Your task to perform on an android device: turn notification dots on Image 0: 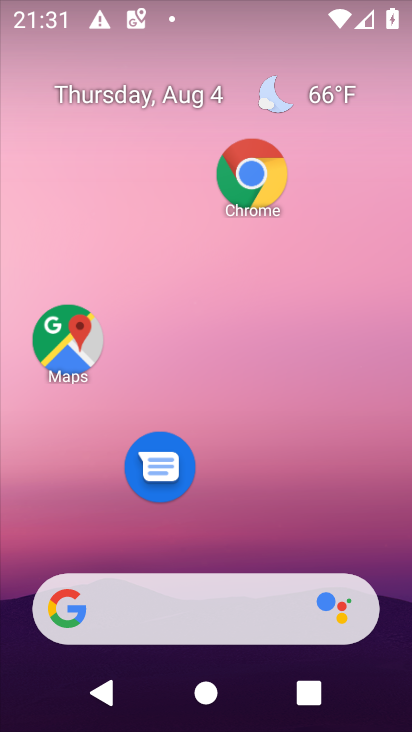
Step 0: drag from (270, 518) to (302, 28)
Your task to perform on an android device: turn notification dots on Image 1: 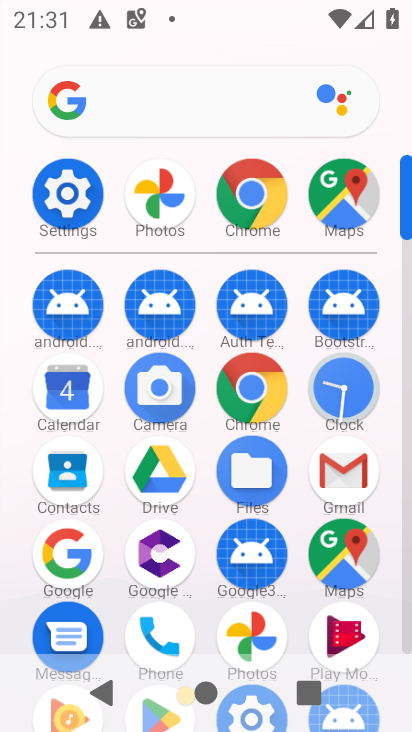
Step 1: click (68, 205)
Your task to perform on an android device: turn notification dots on Image 2: 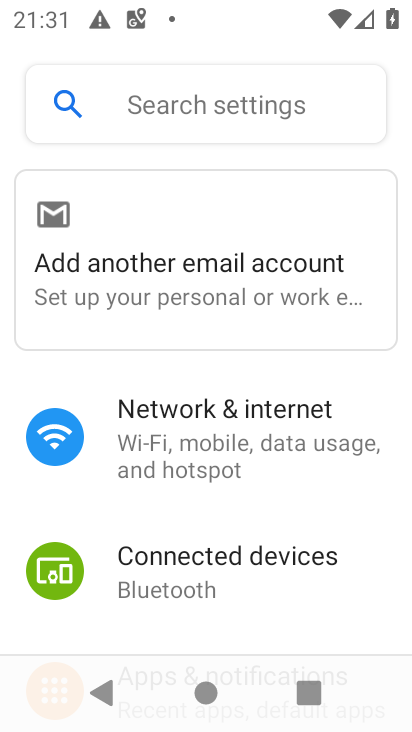
Step 2: drag from (203, 613) to (271, 94)
Your task to perform on an android device: turn notification dots on Image 3: 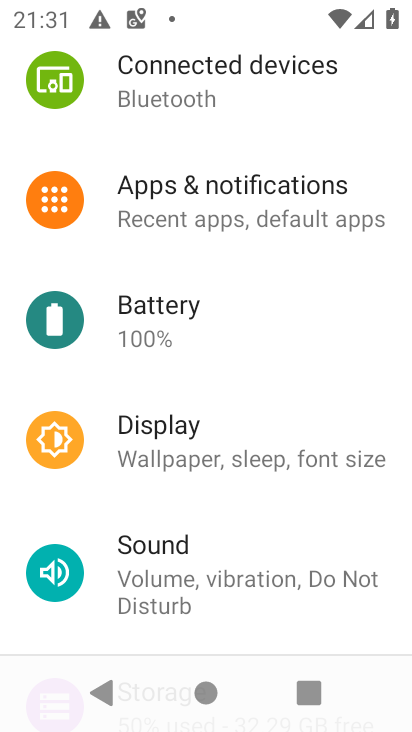
Step 3: drag from (247, 565) to (304, 144)
Your task to perform on an android device: turn notification dots on Image 4: 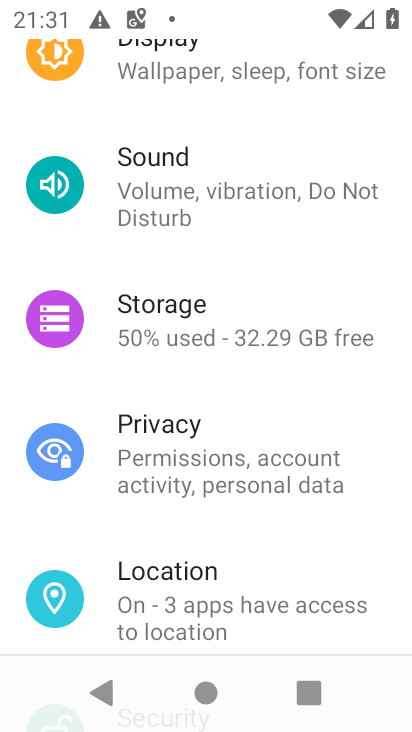
Step 4: drag from (195, 526) to (269, 106)
Your task to perform on an android device: turn notification dots on Image 5: 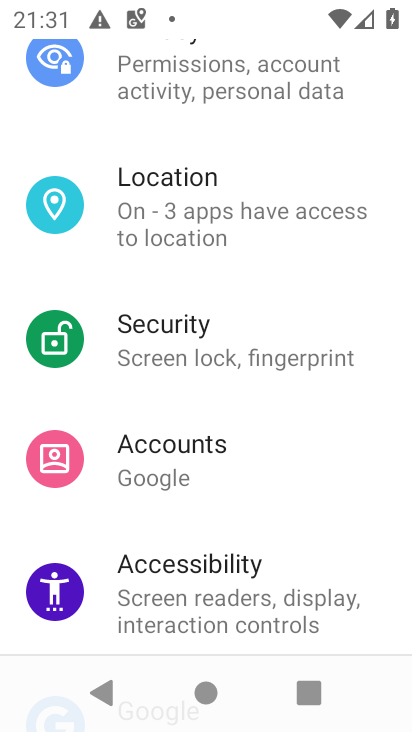
Step 5: drag from (207, 557) to (284, 124)
Your task to perform on an android device: turn notification dots on Image 6: 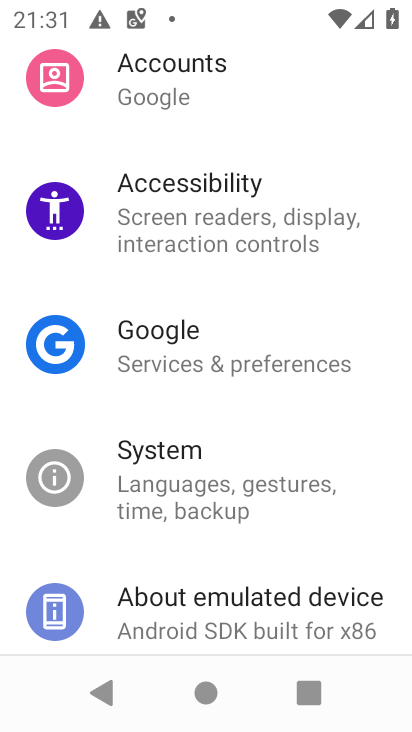
Step 6: drag from (231, 247) to (205, 654)
Your task to perform on an android device: turn notification dots on Image 7: 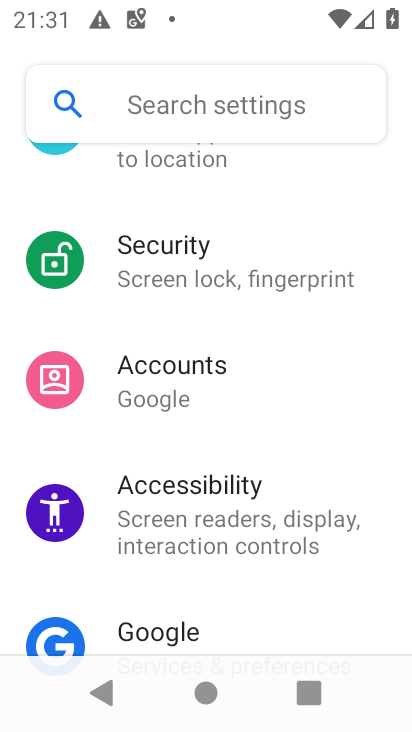
Step 7: drag from (234, 191) to (201, 577)
Your task to perform on an android device: turn notification dots on Image 8: 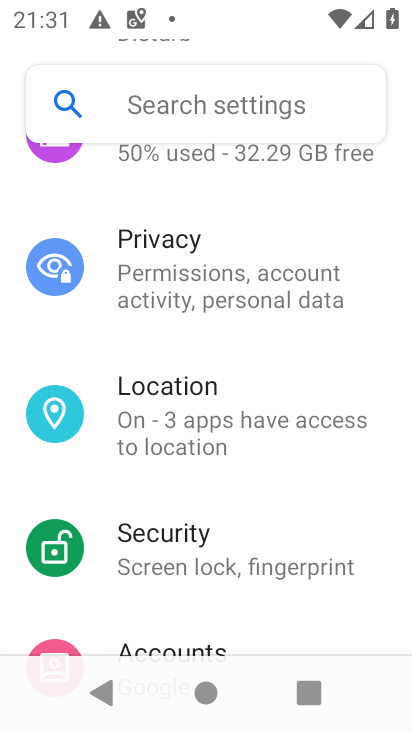
Step 8: drag from (215, 233) to (182, 589)
Your task to perform on an android device: turn notification dots on Image 9: 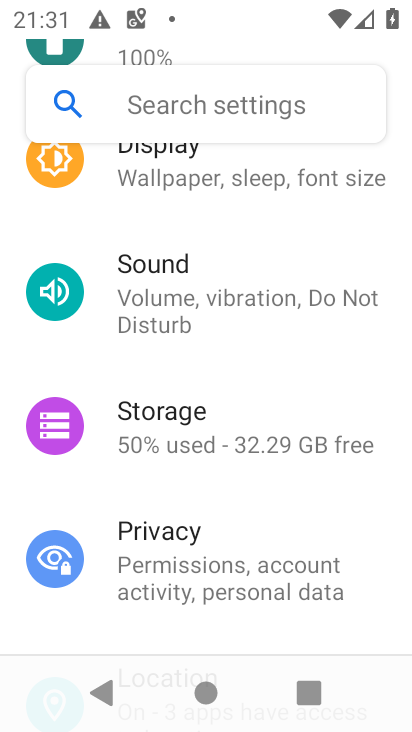
Step 9: drag from (210, 200) to (151, 651)
Your task to perform on an android device: turn notification dots on Image 10: 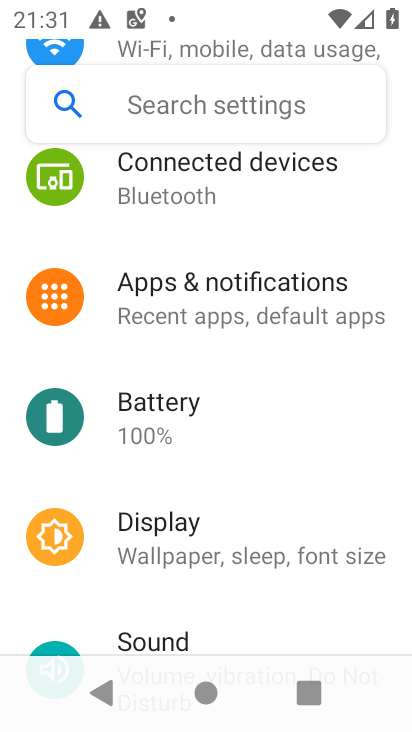
Step 10: click (222, 304)
Your task to perform on an android device: turn notification dots on Image 11: 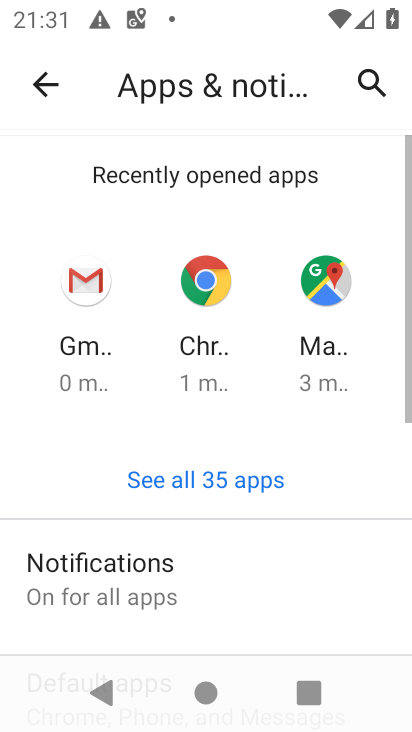
Step 11: click (121, 560)
Your task to perform on an android device: turn notification dots on Image 12: 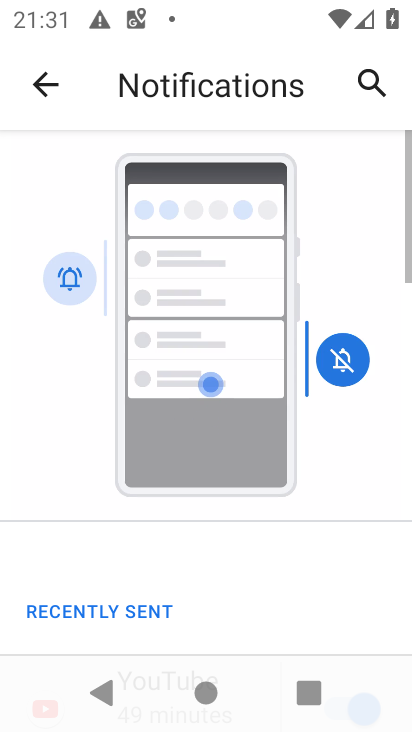
Step 12: drag from (182, 556) to (275, 231)
Your task to perform on an android device: turn notification dots on Image 13: 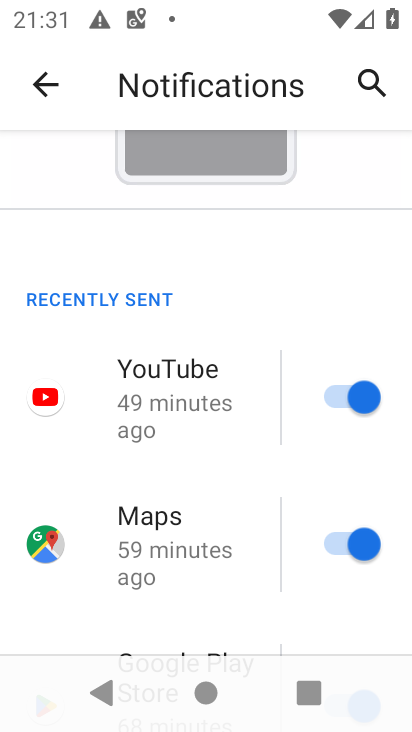
Step 13: drag from (253, 485) to (263, 117)
Your task to perform on an android device: turn notification dots on Image 14: 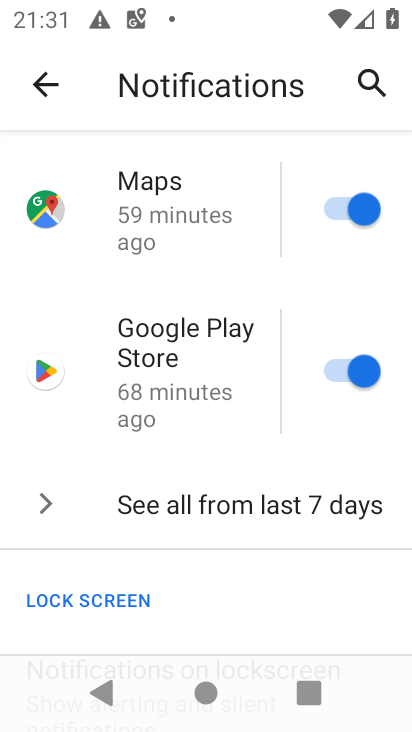
Step 14: drag from (232, 544) to (253, 191)
Your task to perform on an android device: turn notification dots on Image 15: 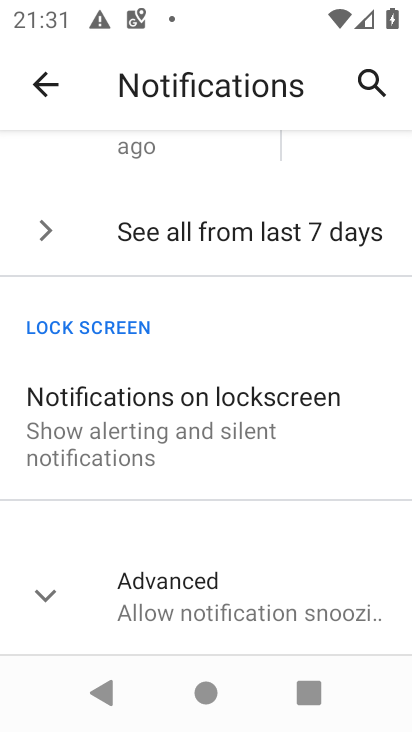
Step 15: drag from (205, 541) to (219, 103)
Your task to perform on an android device: turn notification dots on Image 16: 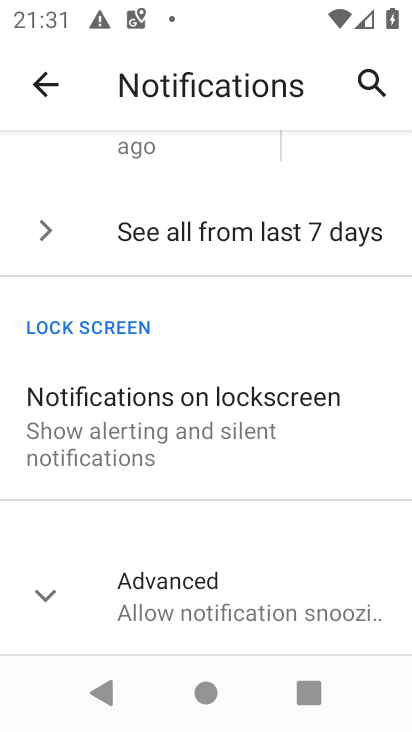
Step 16: click (175, 590)
Your task to perform on an android device: turn notification dots on Image 17: 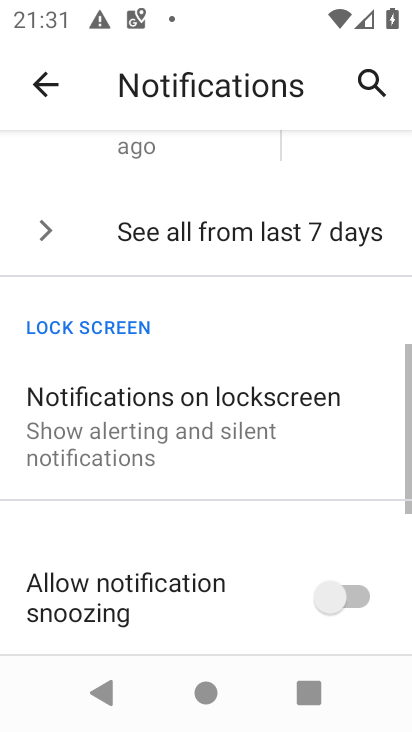
Step 17: drag from (229, 561) to (276, 85)
Your task to perform on an android device: turn notification dots on Image 18: 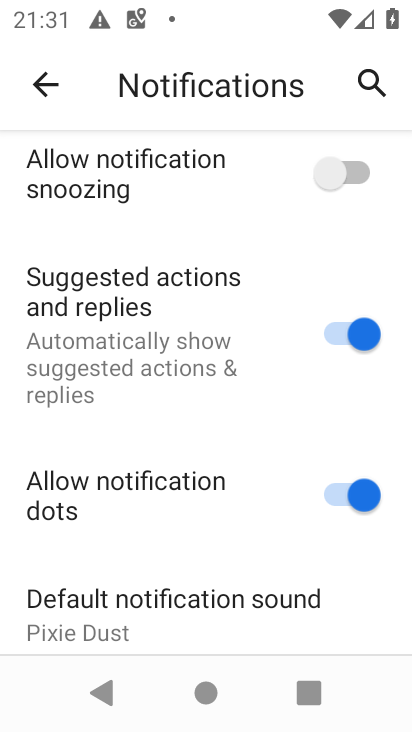
Step 18: click (345, 499)
Your task to perform on an android device: turn notification dots on Image 19: 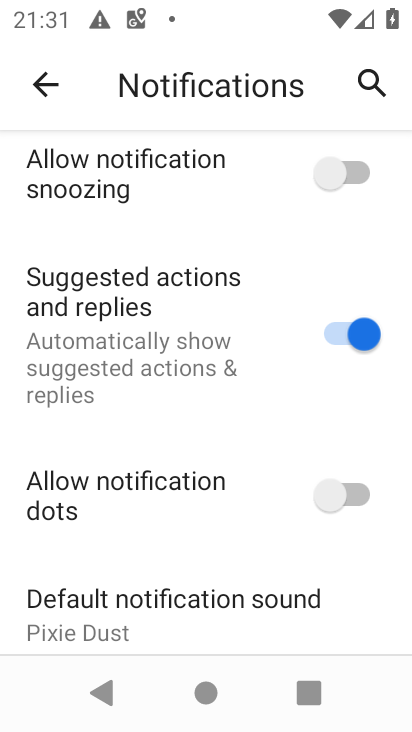
Step 19: task complete